Your task to perform on an android device: open chrome and create a bookmark for the current page Image 0: 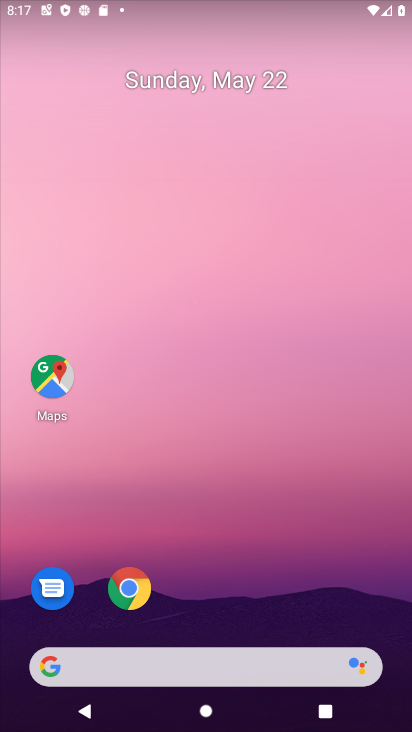
Step 0: click (122, 605)
Your task to perform on an android device: open chrome and create a bookmark for the current page Image 1: 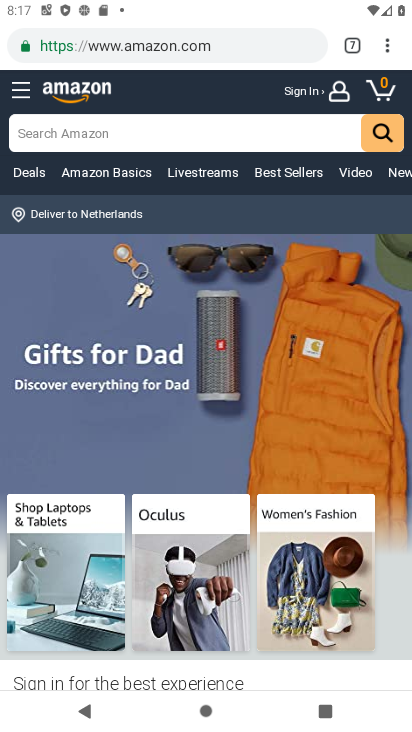
Step 1: click (385, 40)
Your task to perform on an android device: open chrome and create a bookmark for the current page Image 2: 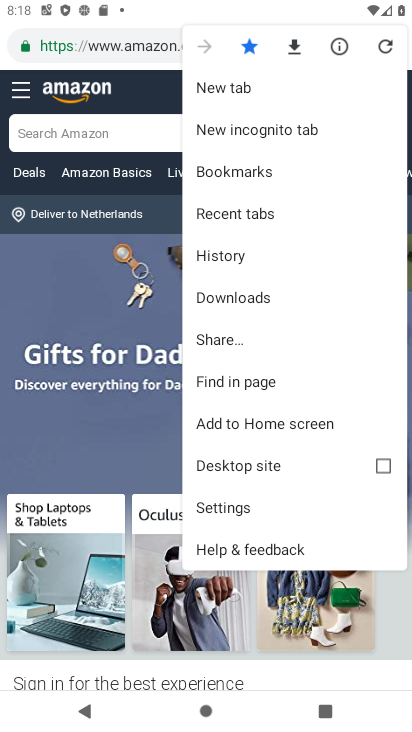
Step 2: task complete